Your task to perform on an android device: Open the web browser Image 0: 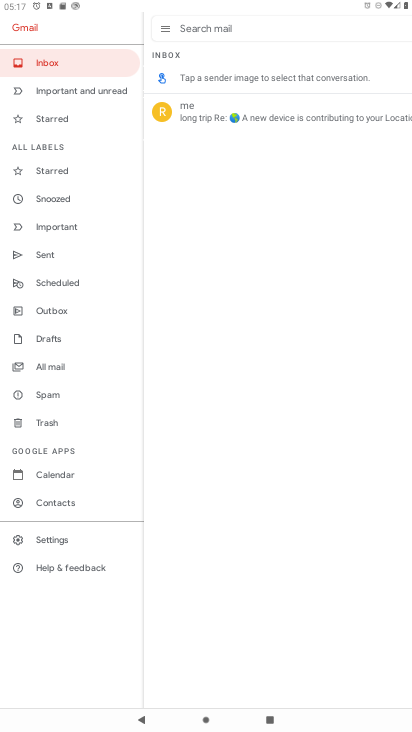
Step 0: press home button
Your task to perform on an android device: Open the web browser Image 1: 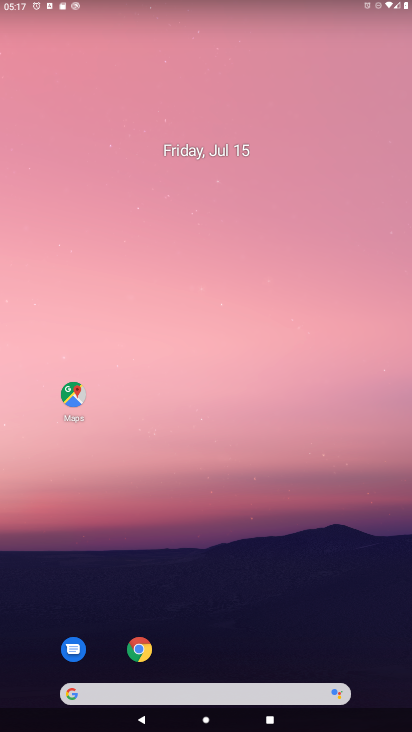
Step 1: click (140, 650)
Your task to perform on an android device: Open the web browser Image 2: 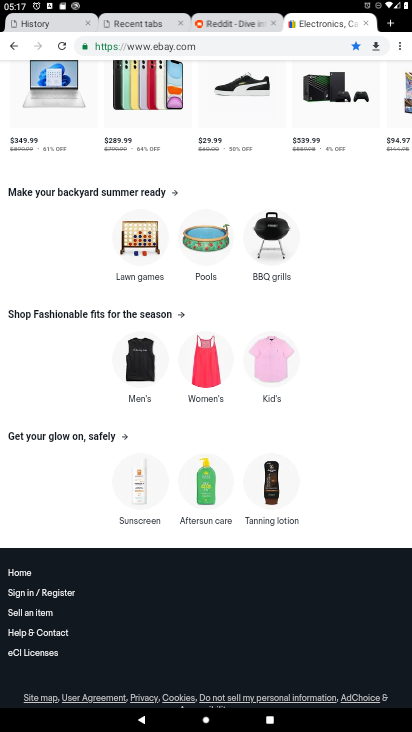
Step 2: task complete